Your task to perform on an android device: Show me recent news Image 0: 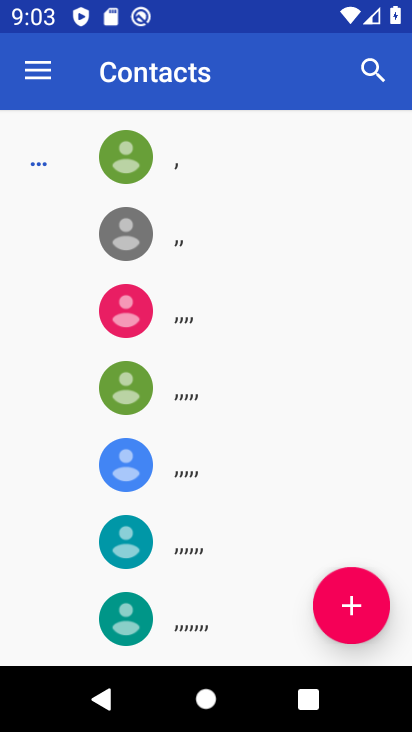
Step 0: press home button
Your task to perform on an android device: Show me recent news Image 1: 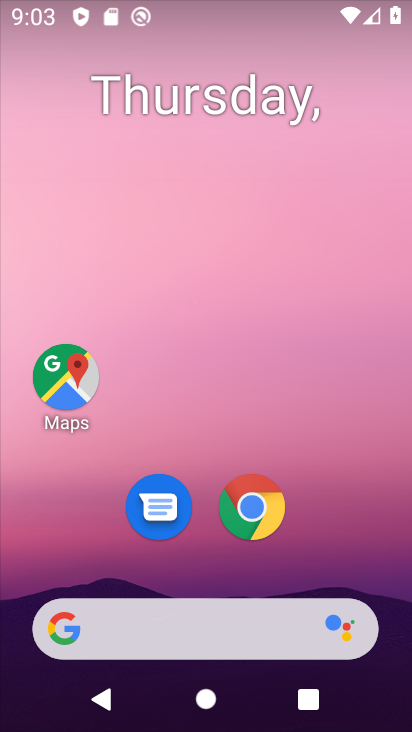
Step 1: click (217, 627)
Your task to perform on an android device: Show me recent news Image 2: 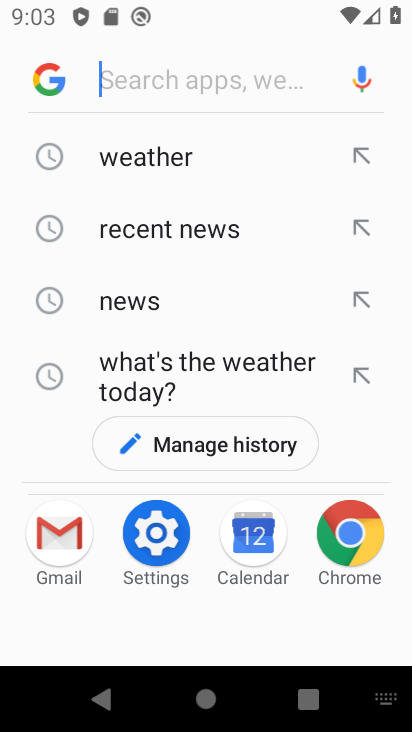
Step 2: click (201, 253)
Your task to perform on an android device: Show me recent news Image 3: 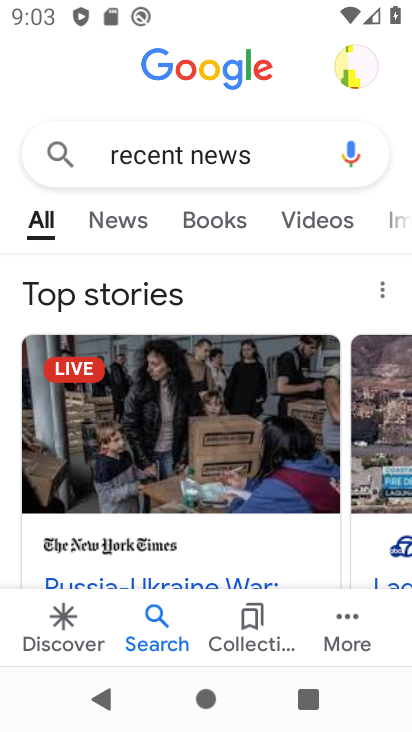
Step 3: task complete